Your task to perform on an android device: set the timer Image 0: 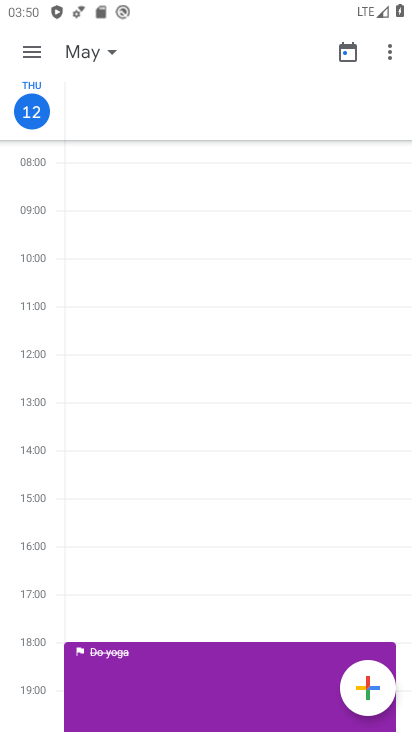
Step 0: press home button
Your task to perform on an android device: set the timer Image 1: 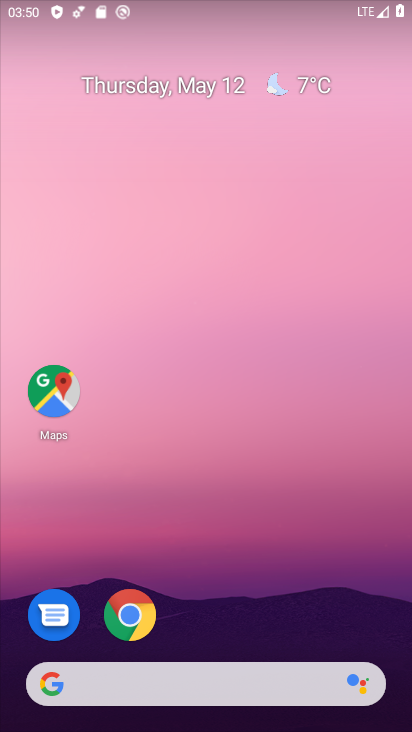
Step 1: drag from (330, 615) to (332, 31)
Your task to perform on an android device: set the timer Image 2: 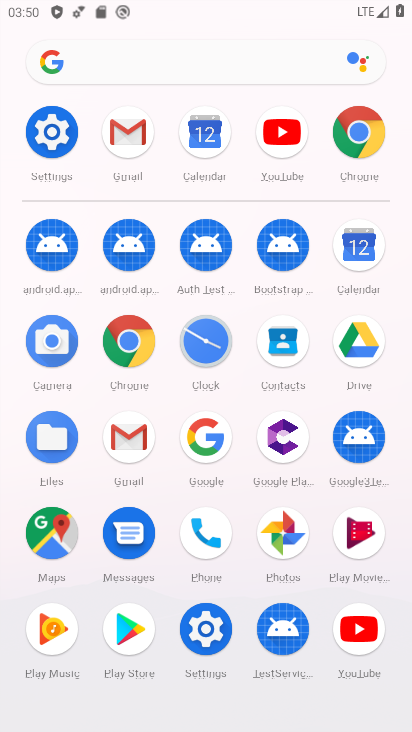
Step 2: click (215, 347)
Your task to perform on an android device: set the timer Image 3: 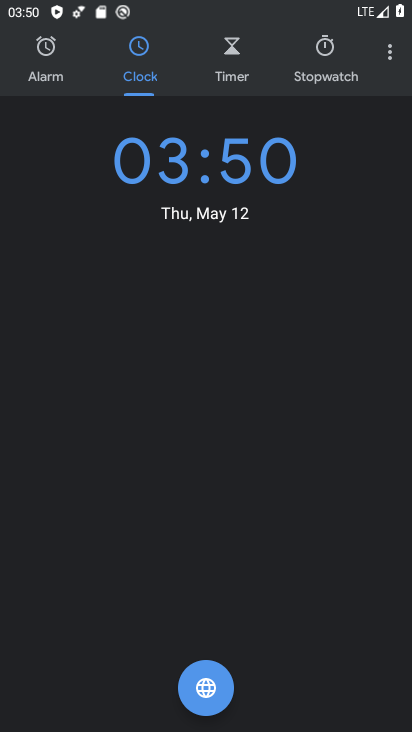
Step 3: click (239, 56)
Your task to perform on an android device: set the timer Image 4: 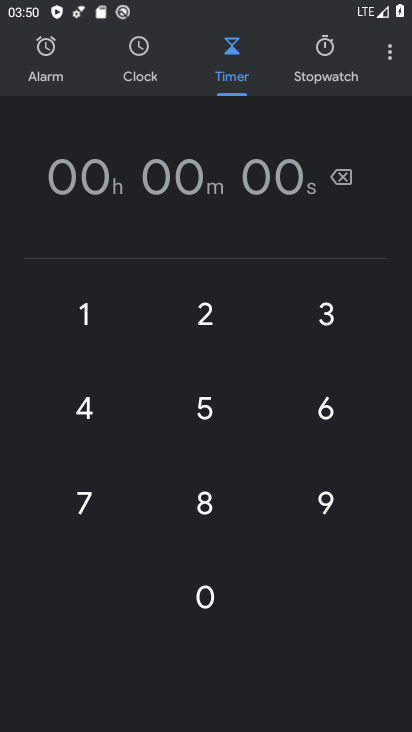
Step 4: click (236, 421)
Your task to perform on an android device: set the timer Image 5: 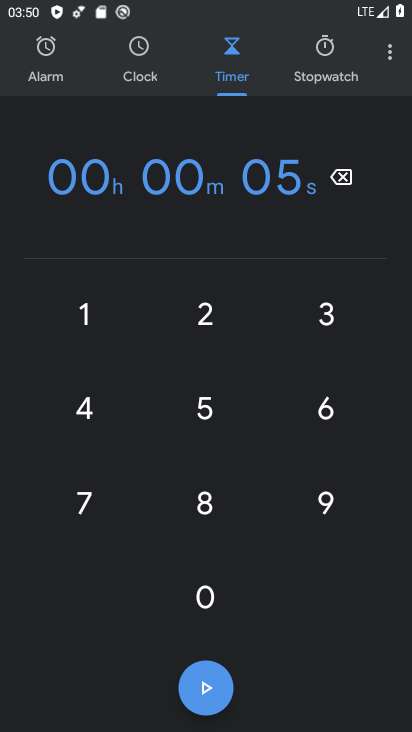
Step 5: click (231, 333)
Your task to perform on an android device: set the timer Image 6: 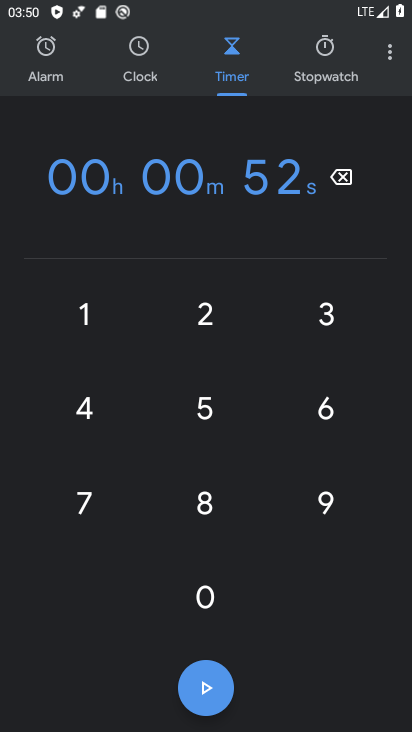
Step 6: click (207, 611)
Your task to perform on an android device: set the timer Image 7: 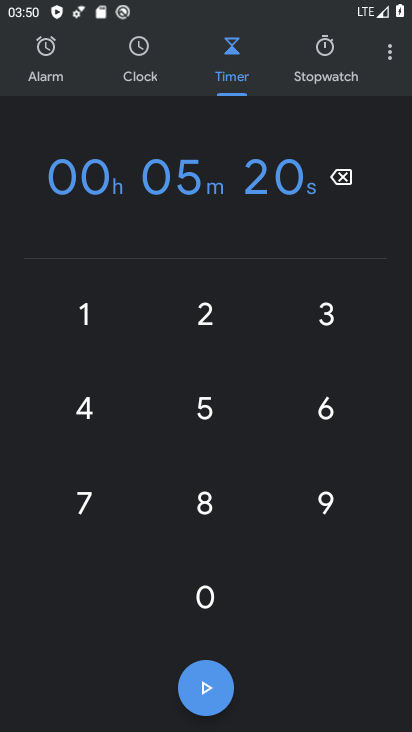
Step 7: click (196, 524)
Your task to perform on an android device: set the timer Image 8: 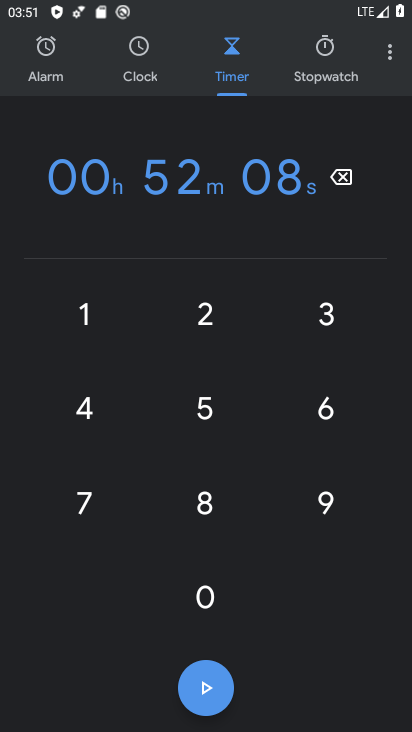
Step 8: task complete